Your task to perform on an android device: Open my contact list Image 0: 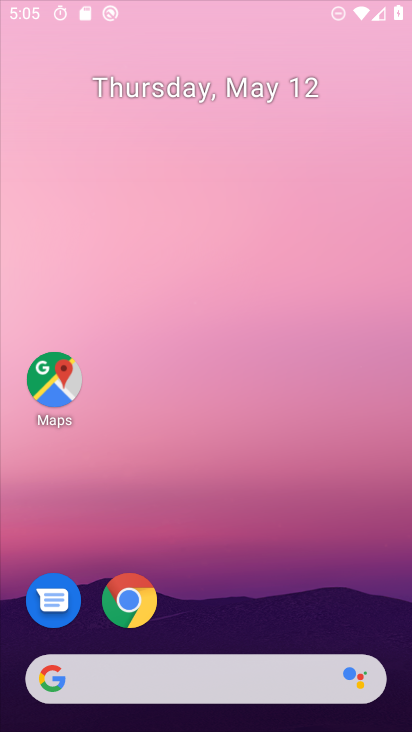
Step 0: click (231, 202)
Your task to perform on an android device: Open my contact list Image 1: 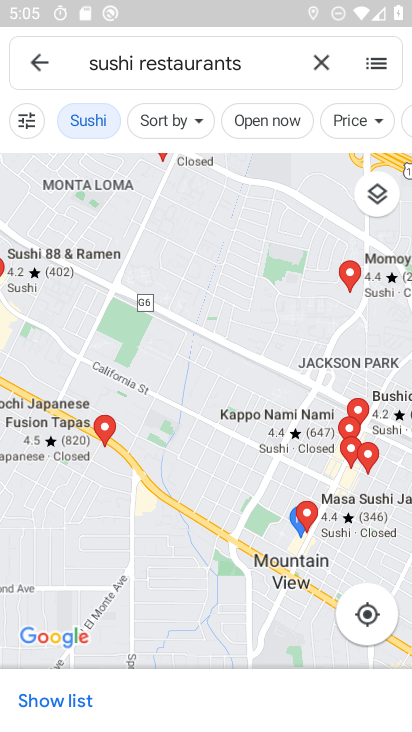
Step 1: drag from (183, 614) to (251, 53)
Your task to perform on an android device: Open my contact list Image 2: 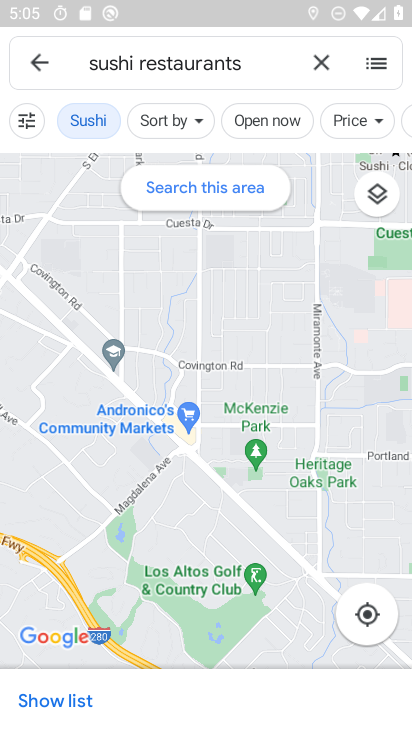
Step 2: press home button
Your task to perform on an android device: Open my contact list Image 3: 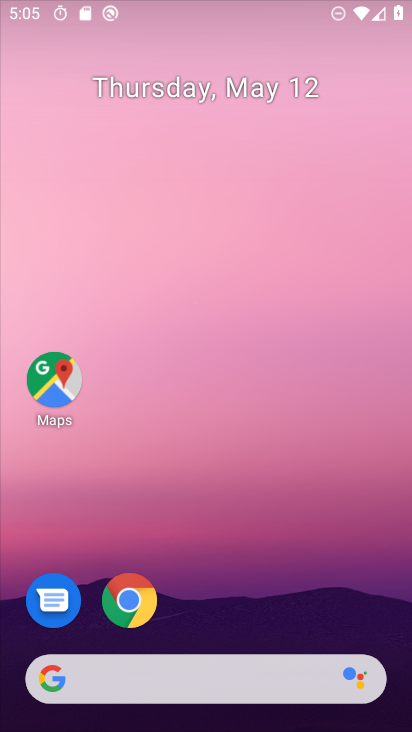
Step 3: drag from (220, 586) to (302, 80)
Your task to perform on an android device: Open my contact list Image 4: 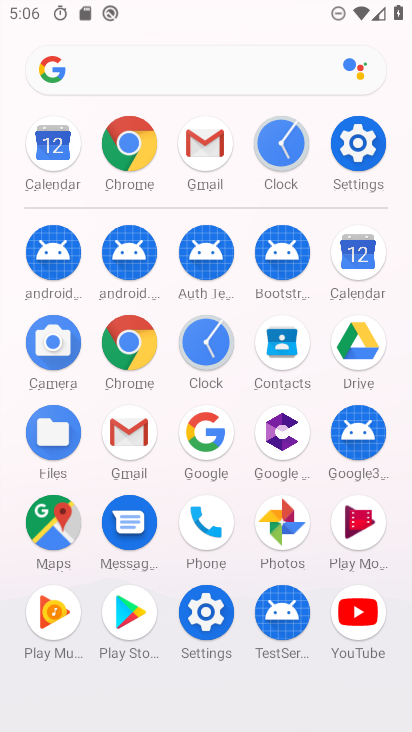
Step 4: click (287, 339)
Your task to perform on an android device: Open my contact list Image 5: 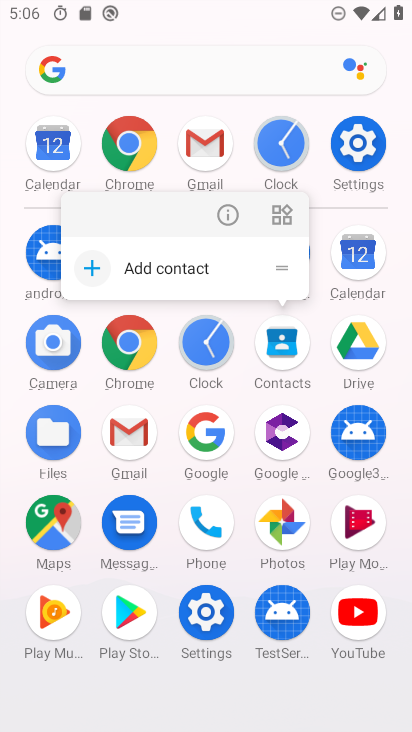
Step 5: click (228, 212)
Your task to perform on an android device: Open my contact list Image 6: 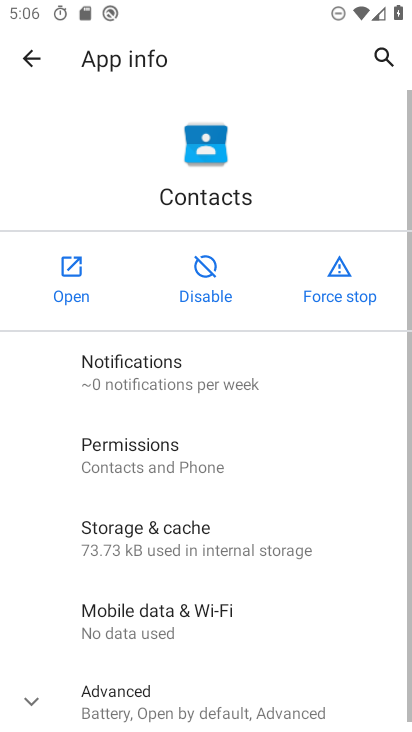
Step 6: click (70, 285)
Your task to perform on an android device: Open my contact list Image 7: 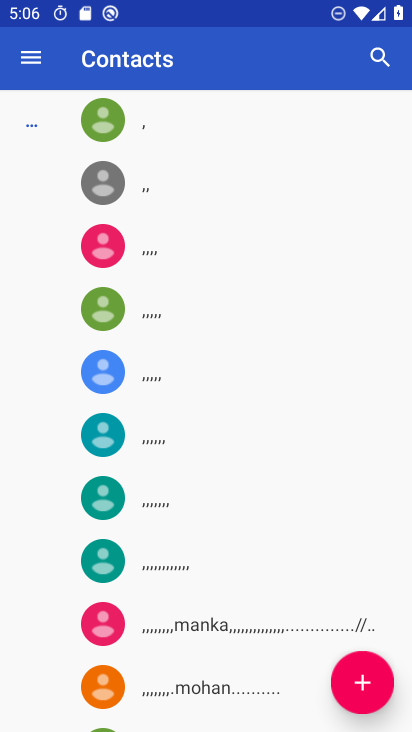
Step 7: task complete